Your task to perform on an android device: empty trash in google photos Image 0: 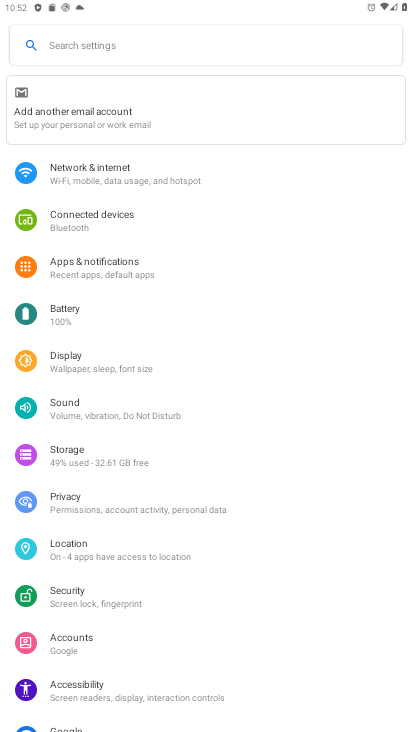
Step 0: press home button
Your task to perform on an android device: empty trash in google photos Image 1: 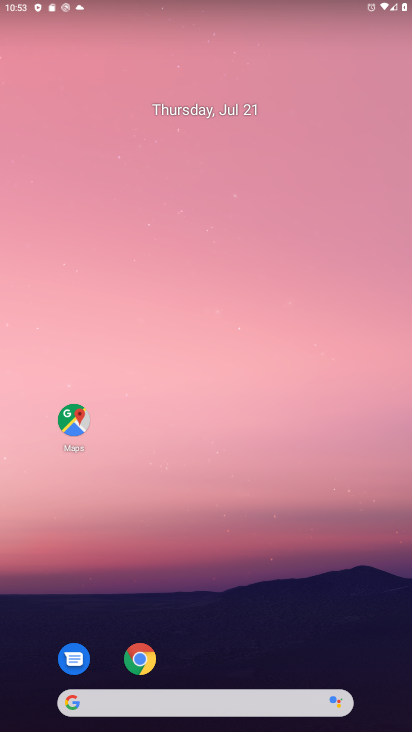
Step 1: drag from (230, 580) to (122, 15)
Your task to perform on an android device: empty trash in google photos Image 2: 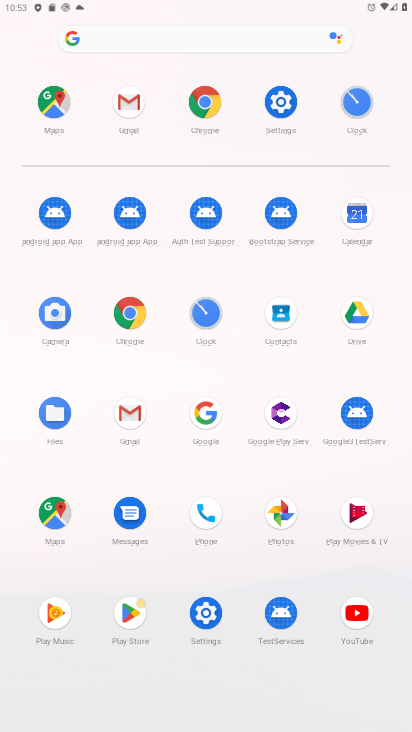
Step 2: click (276, 511)
Your task to perform on an android device: empty trash in google photos Image 3: 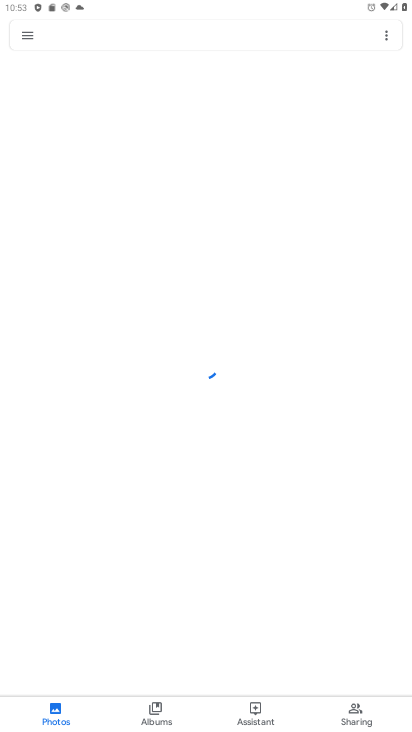
Step 3: task complete